Your task to perform on an android device: Go to Amazon Image 0: 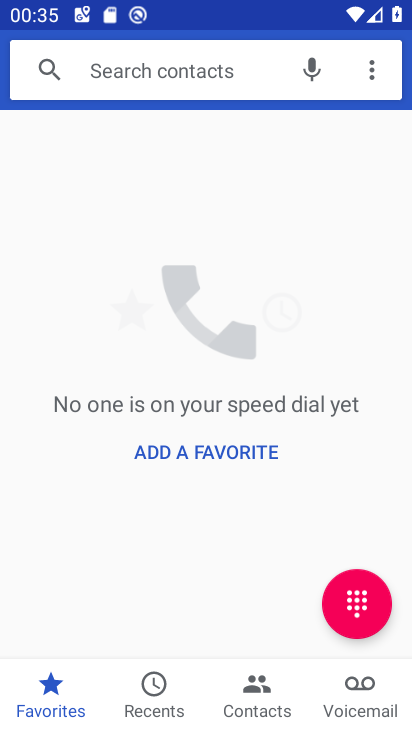
Step 0: press home button
Your task to perform on an android device: Go to Amazon Image 1: 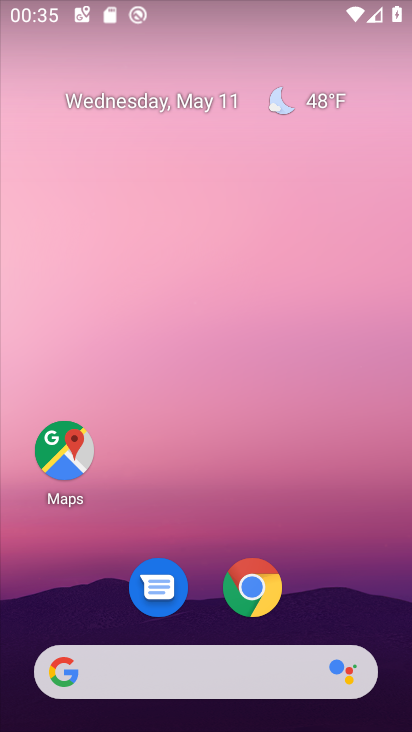
Step 1: click (255, 574)
Your task to perform on an android device: Go to Amazon Image 2: 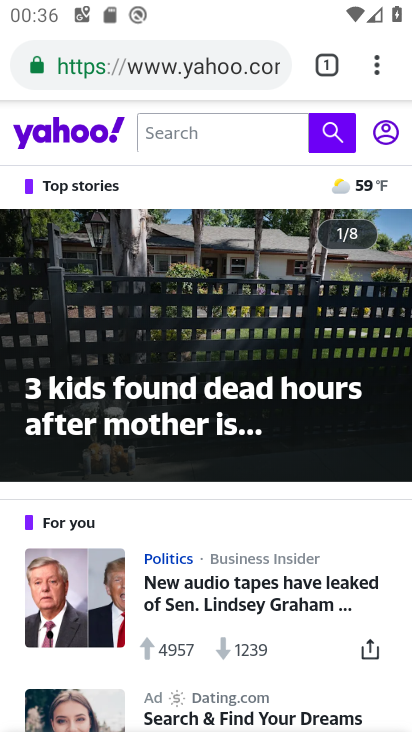
Step 2: click (321, 62)
Your task to perform on an android device: Go to Amazon Image 3: 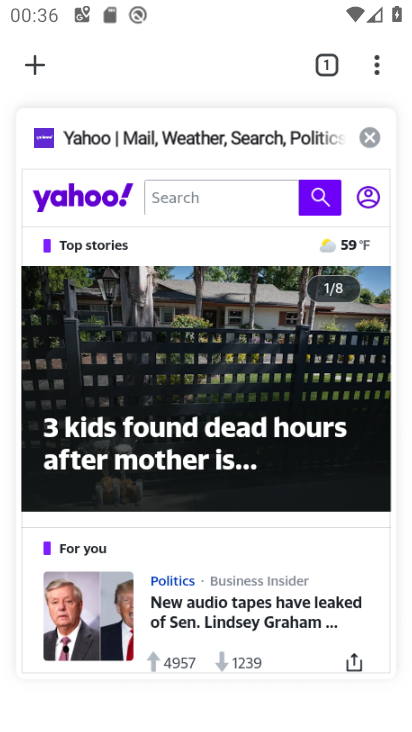
Step 3: click (366, 142)
Your task to perform on an android device: Go to Amazon Image 4: 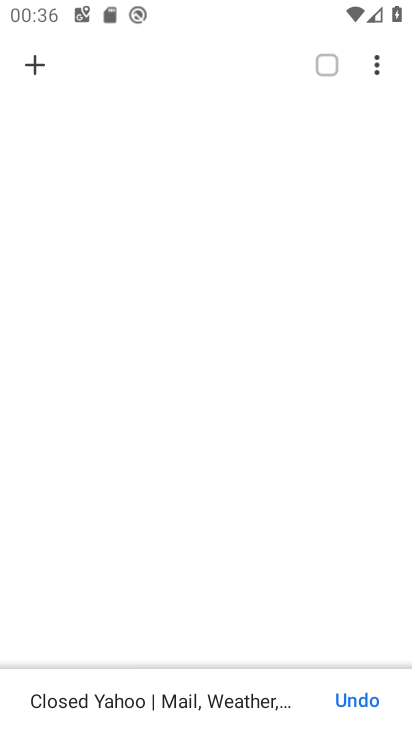
Step 4: click (30, 71)
Your task to perform on an android device: Go to Amazon Image 5: 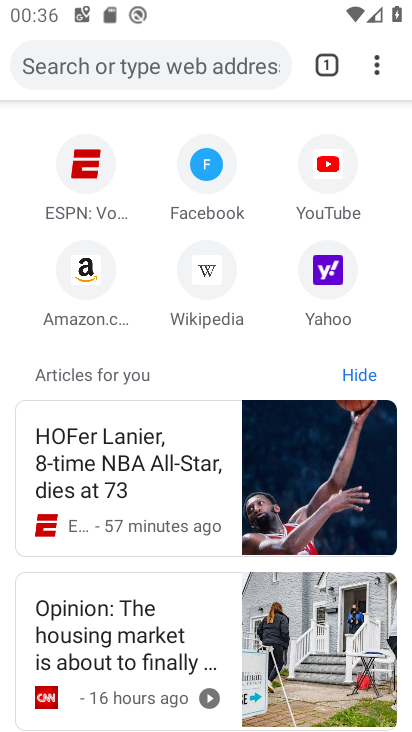
Step 5: click (87, 270)
Your task to perform on an android device: Go to Amazon Image 6: 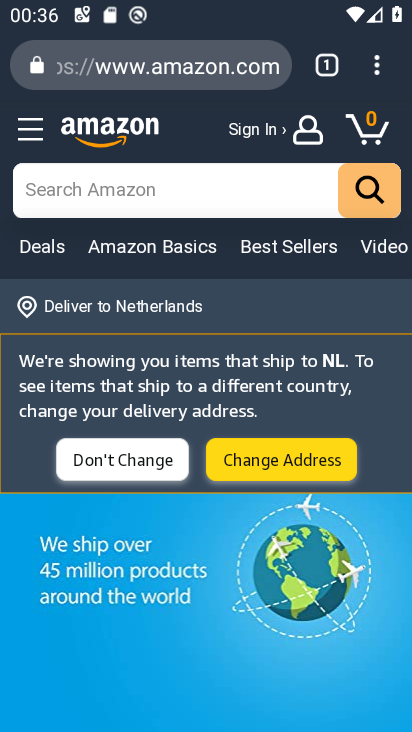
Step 6: task complete